Your task to perform on an android device: Open ESPN.com Image 0: 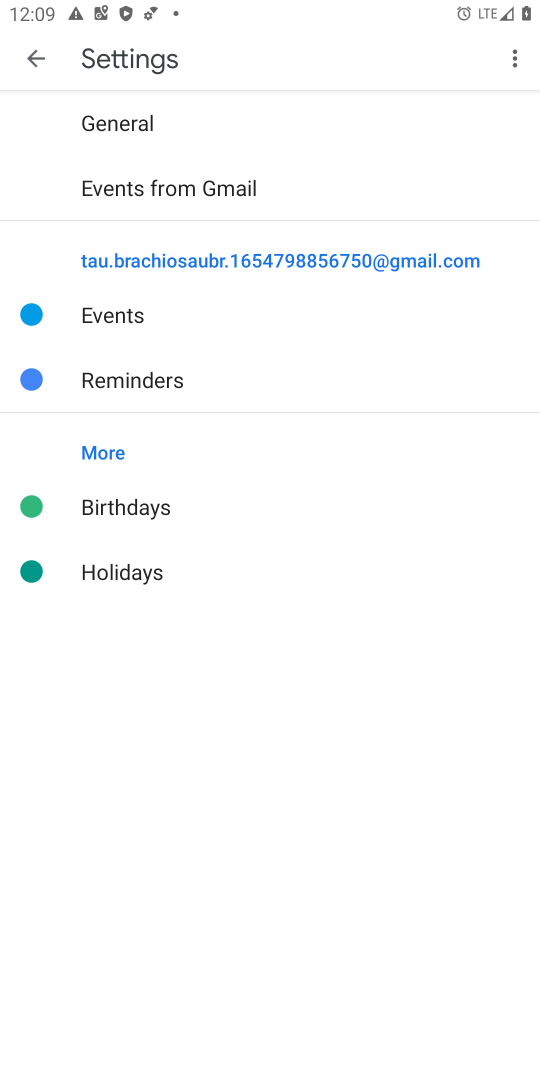
Step 0: press home button
Your task to perform on an android device: Open ESPN.com Image 1: 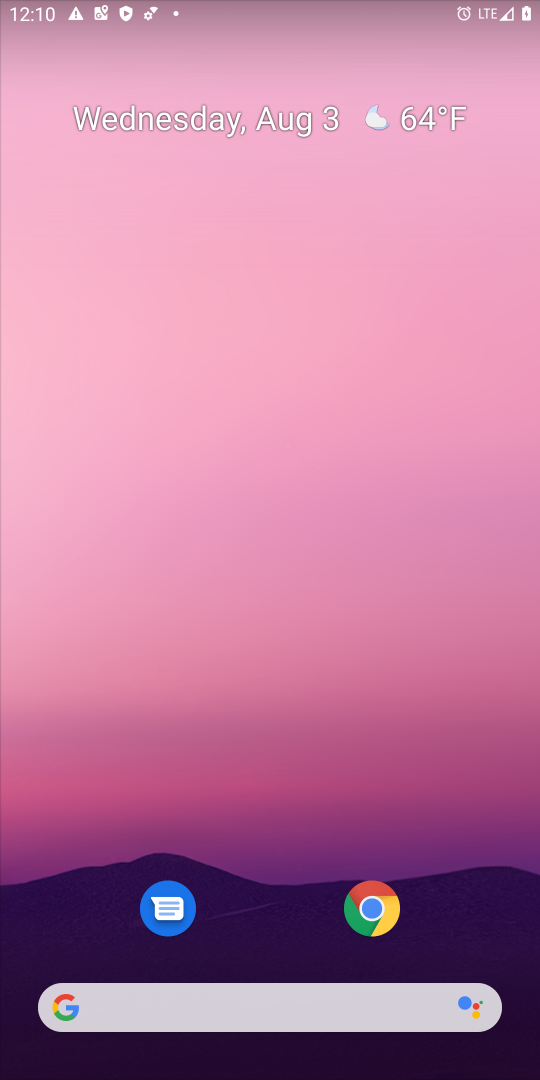
Step 1: drag from (325, 694) to (355, 126)
Your task to perform on an android device: Open ESPN.com Image 2: 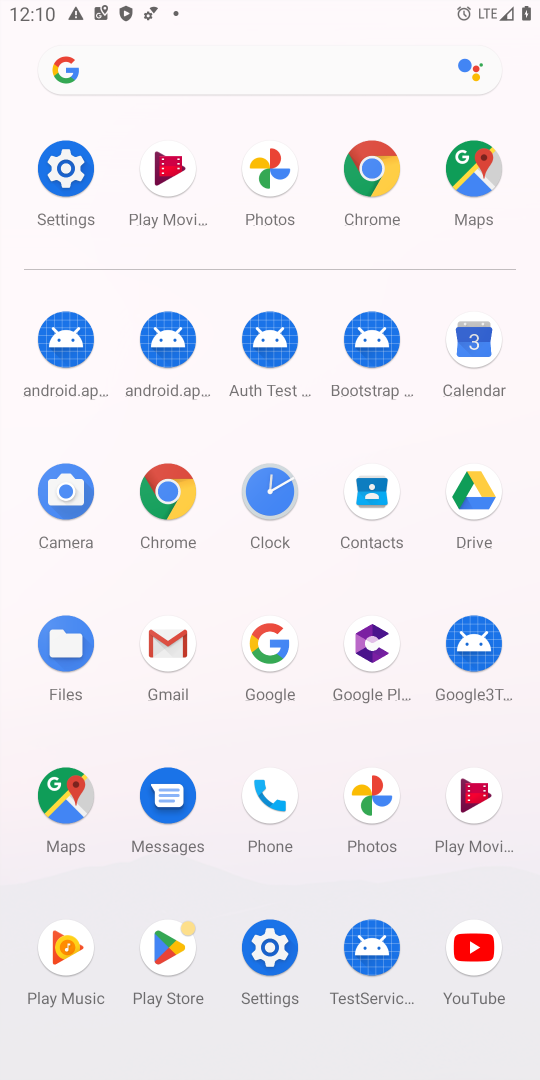
Step 2: click (174, 511)
Your task to perform on an android device: Open ESPN.com Image 3: 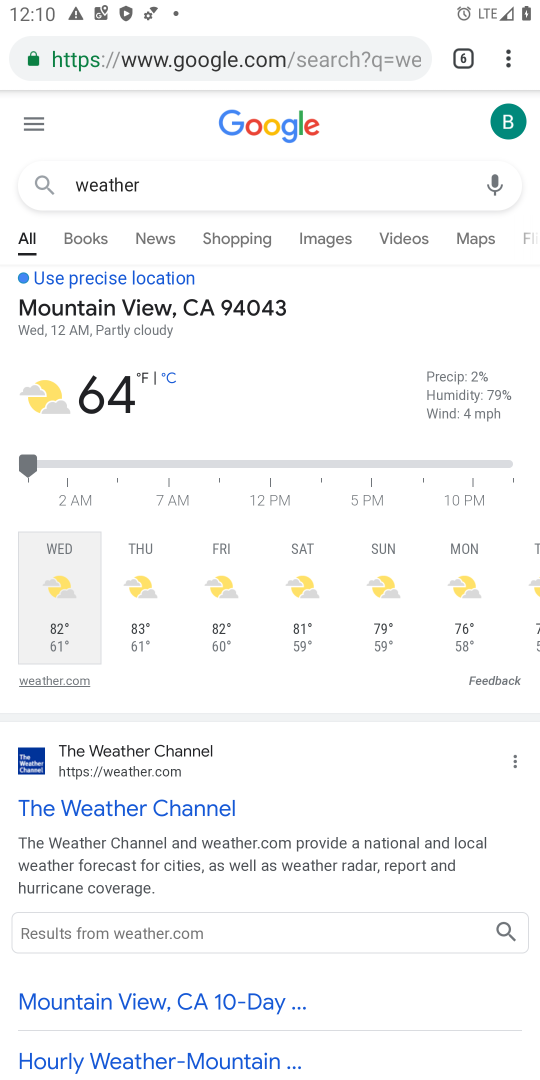
Step 3: click (471, 66)
Your task to perform on an android device: Open ESPN.com Image 4: 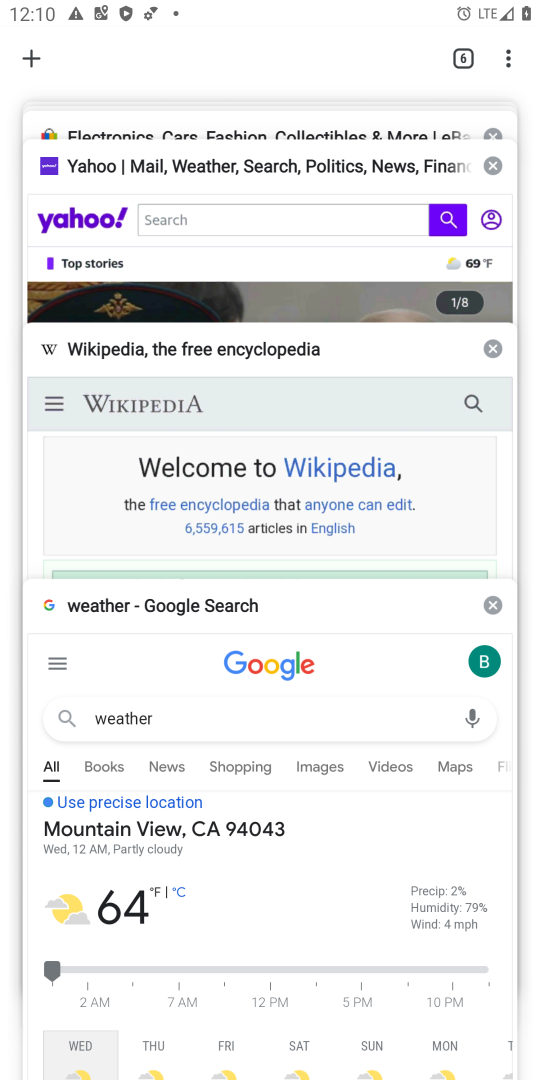
Step 4: click (35, 60)
Your task to perform on an android device: Open ESPN.com Image 5: 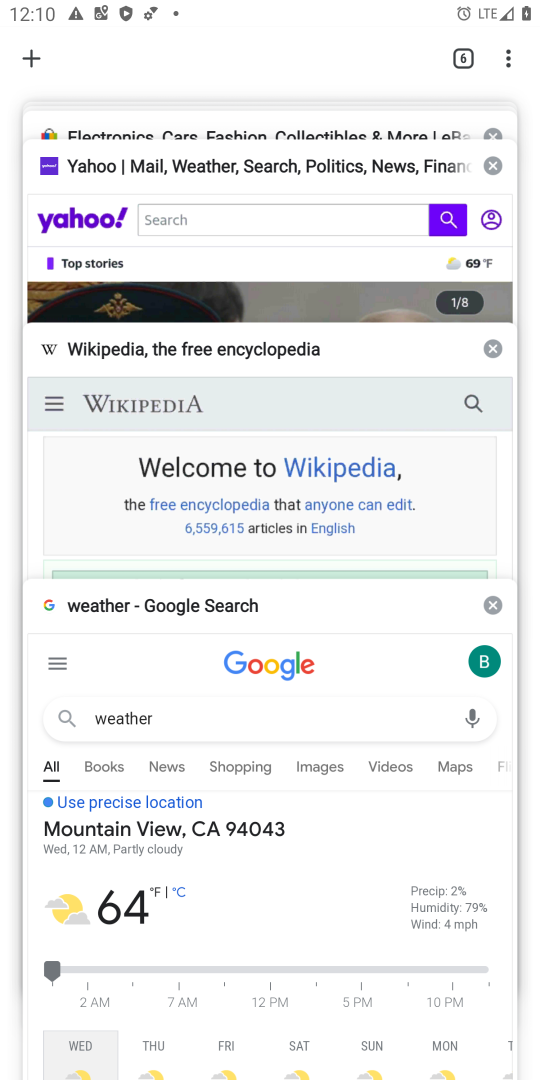
Step 5: click (42, 48)
Your task to perform on an android device: Open ESPN.com Image 6: 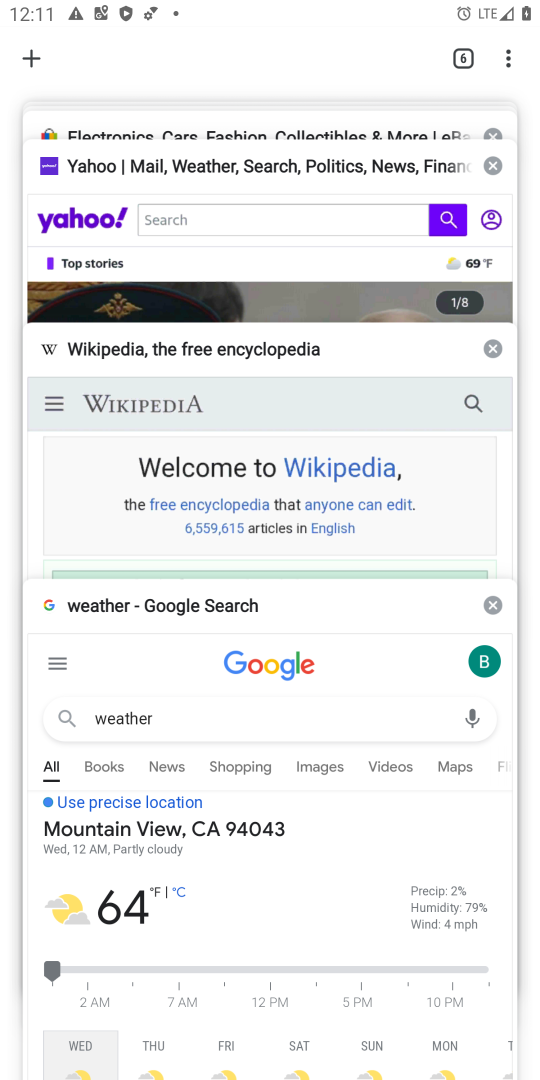
Step 6: click (40, 64)
Your task to perform on an android device: Open ESPN.com Image 7: 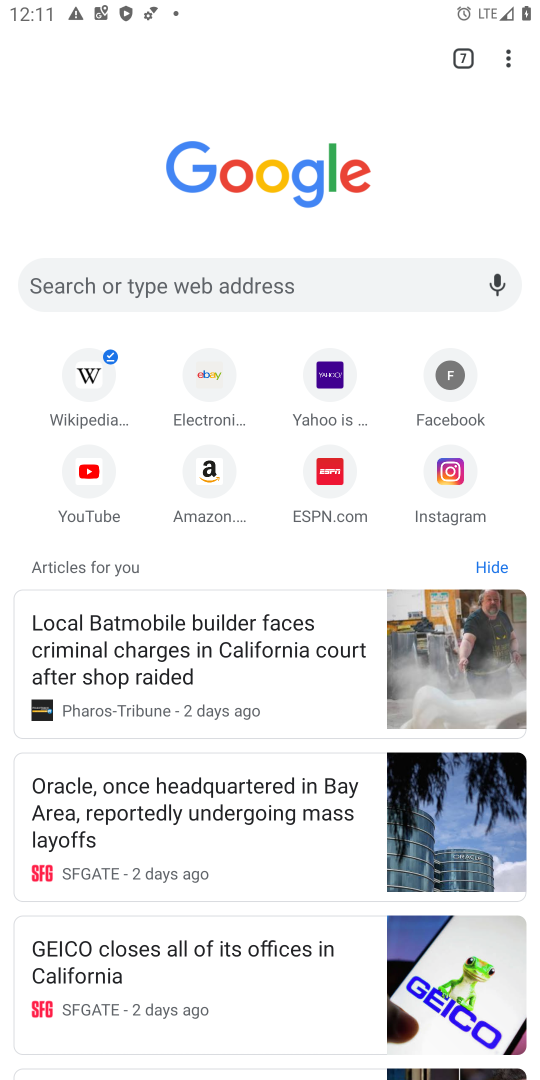
Step 7: click (314, 483)
Your task to perform on an android device: Open ESPN.com Image 8: 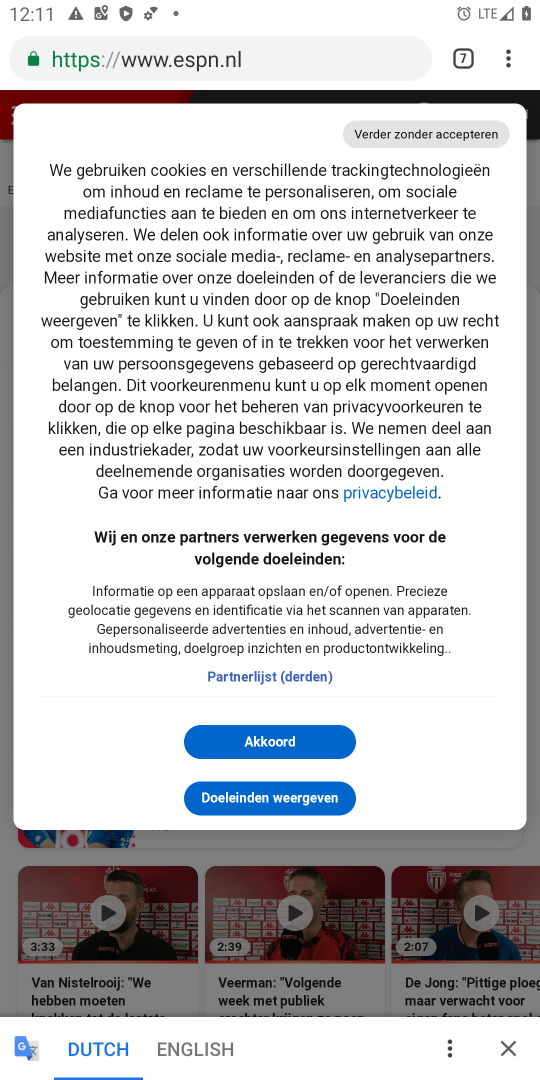
Step 8: task complete